Your task to perform on an android device: turn notification dots off Image 0: 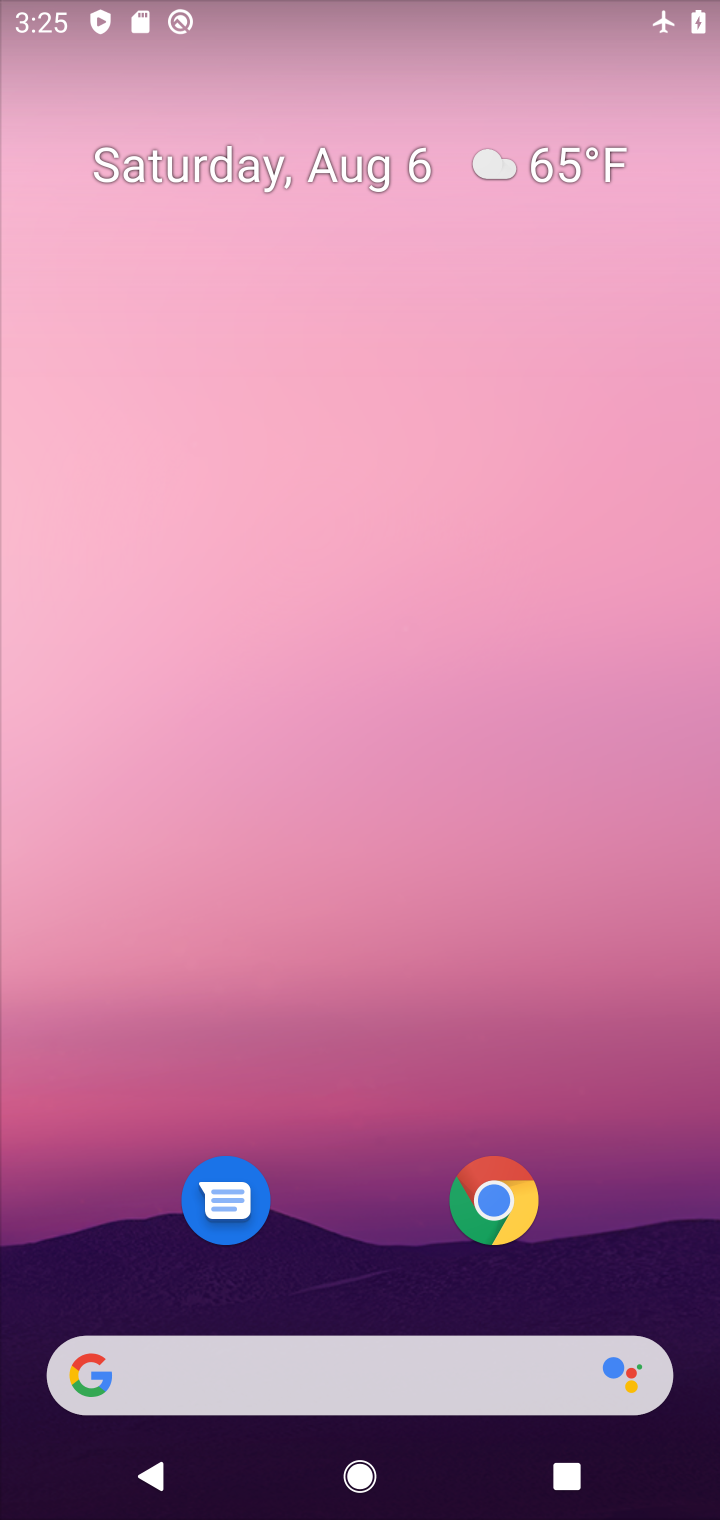
Step 0: drag from (313, 1313) to (480, 219)
Your task to perform on an android device: turn notification dots off Image 1: 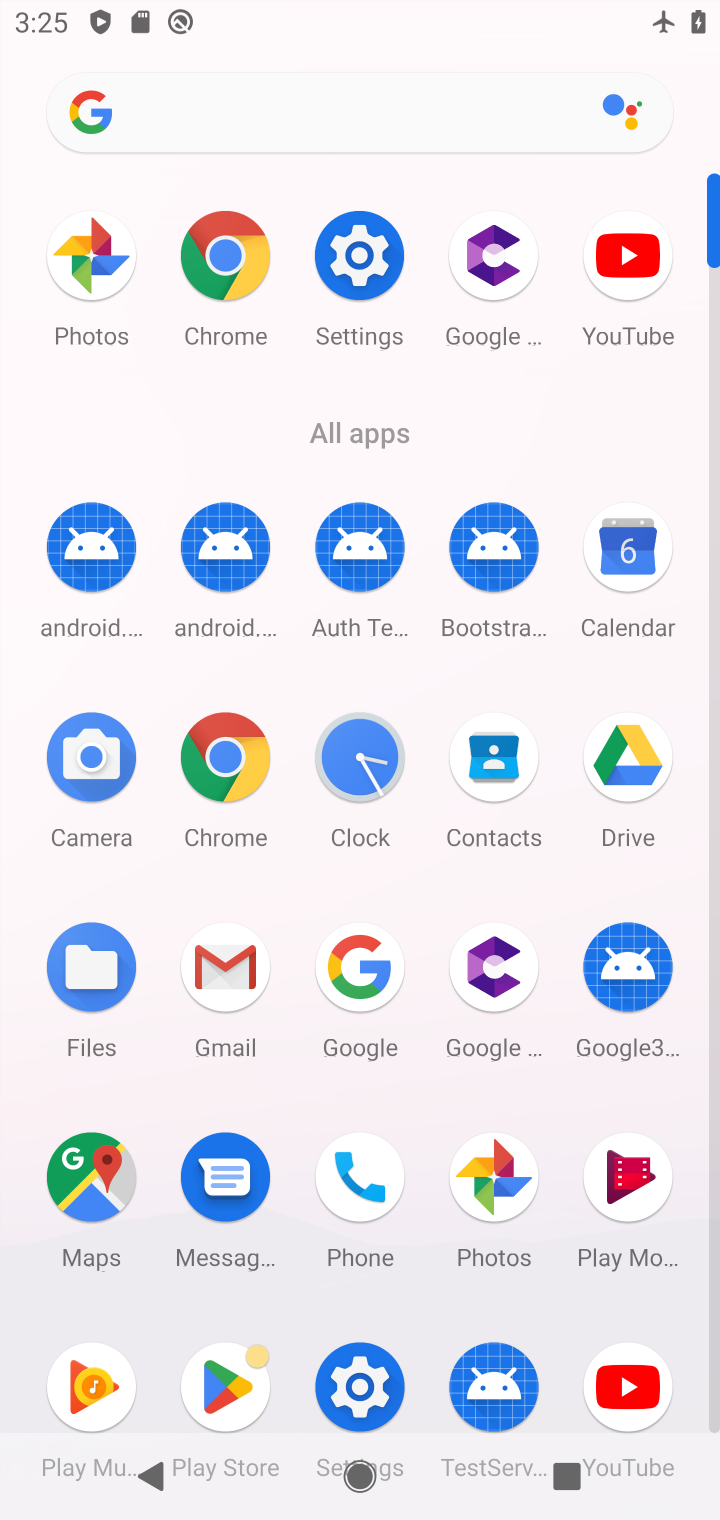
Step 1: click (361, 265)
Your task to perform on an android device: turn notification dots off Image 2: 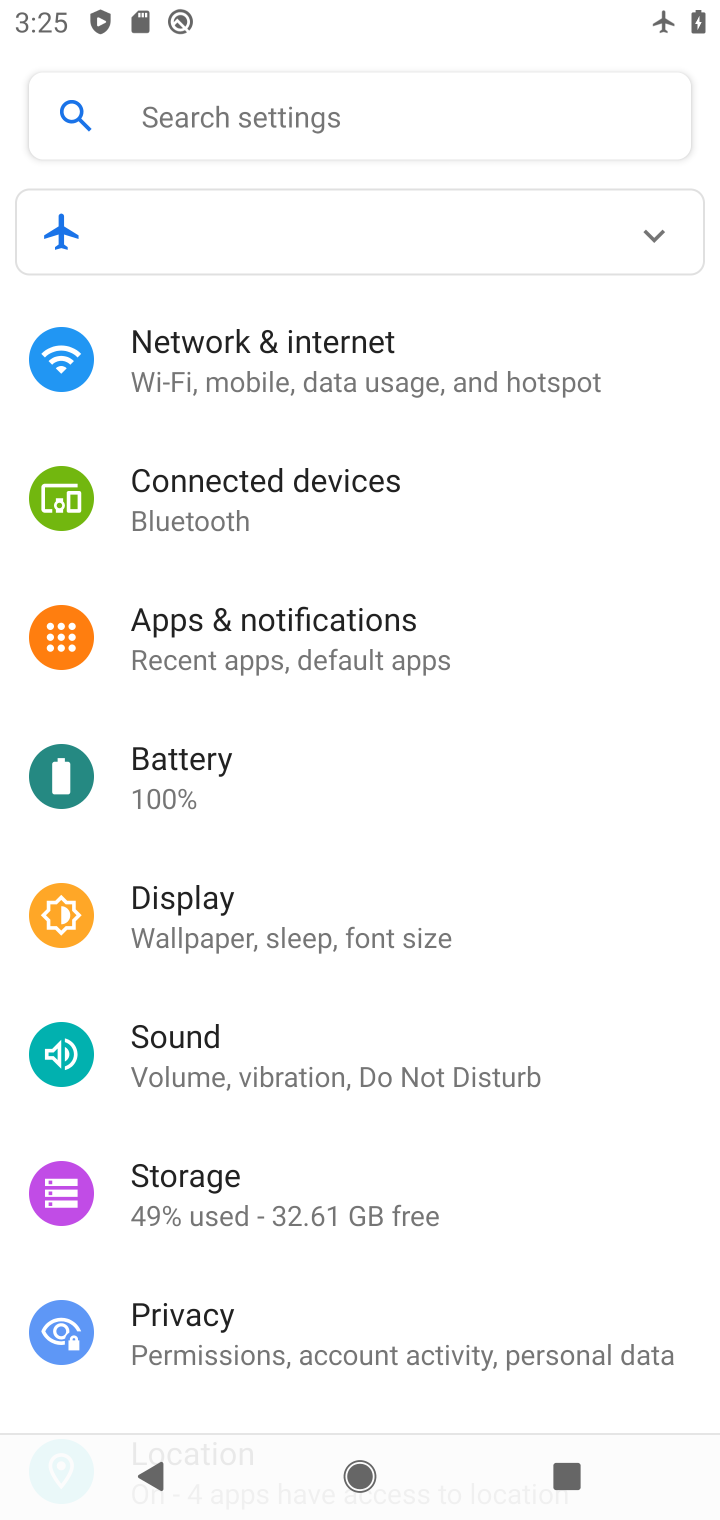
Step 2: click (152, 632)
Your task to perform on an android device: turn notification dots off Image 3: 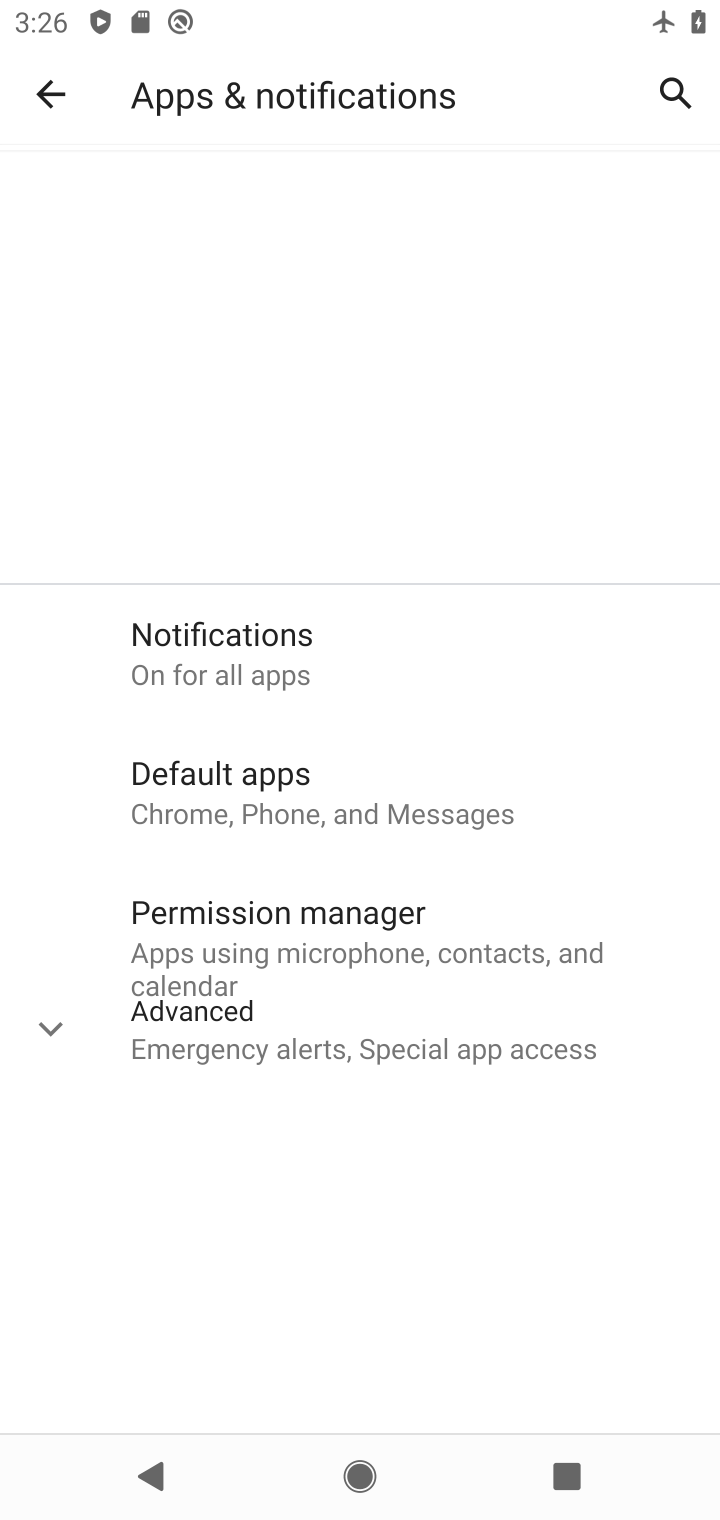
Step 3: click (190, 659)
Your task to perform on an android device: turn notification dots off Image 4: 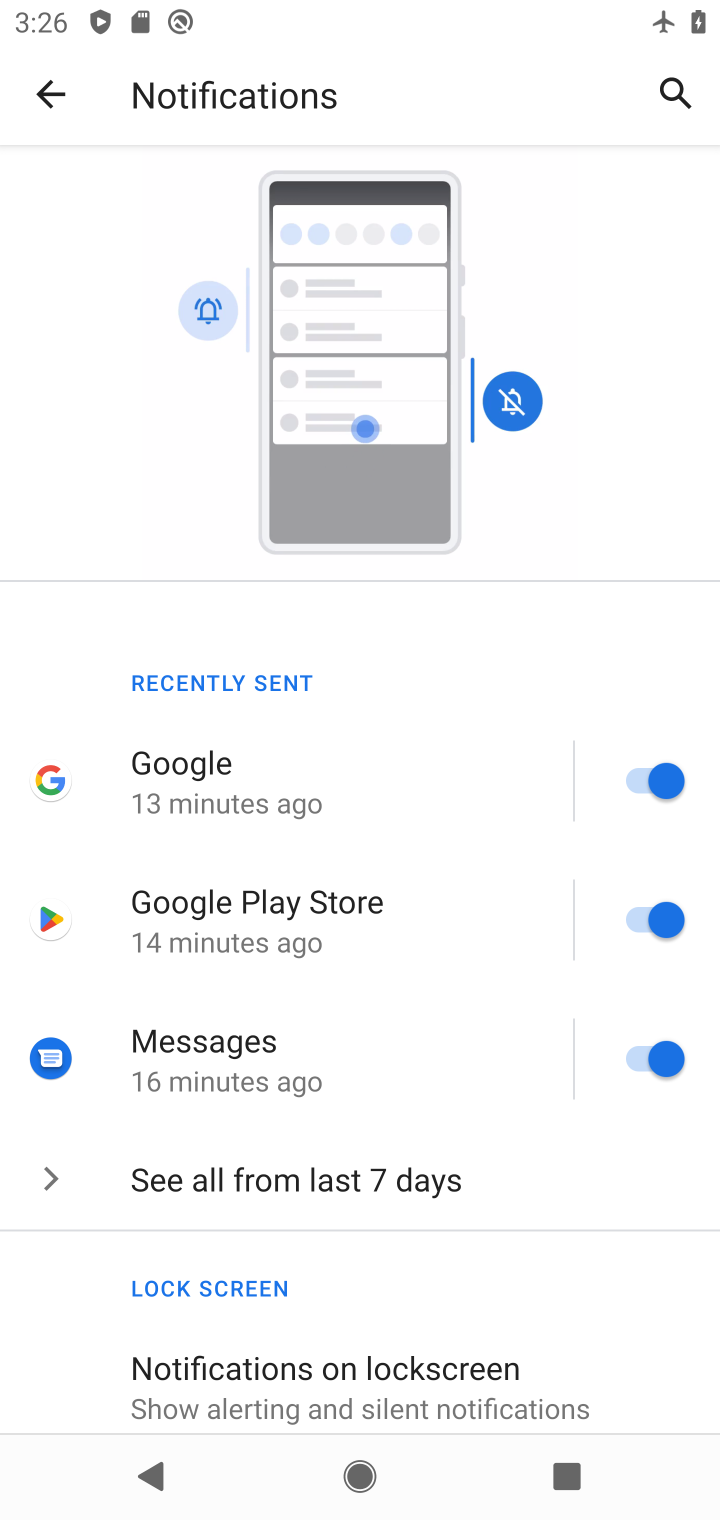
Step 4: drag from (213, 1379) to (214, 573)
Your task to perform on an android device: turn notification dots off Image 5: 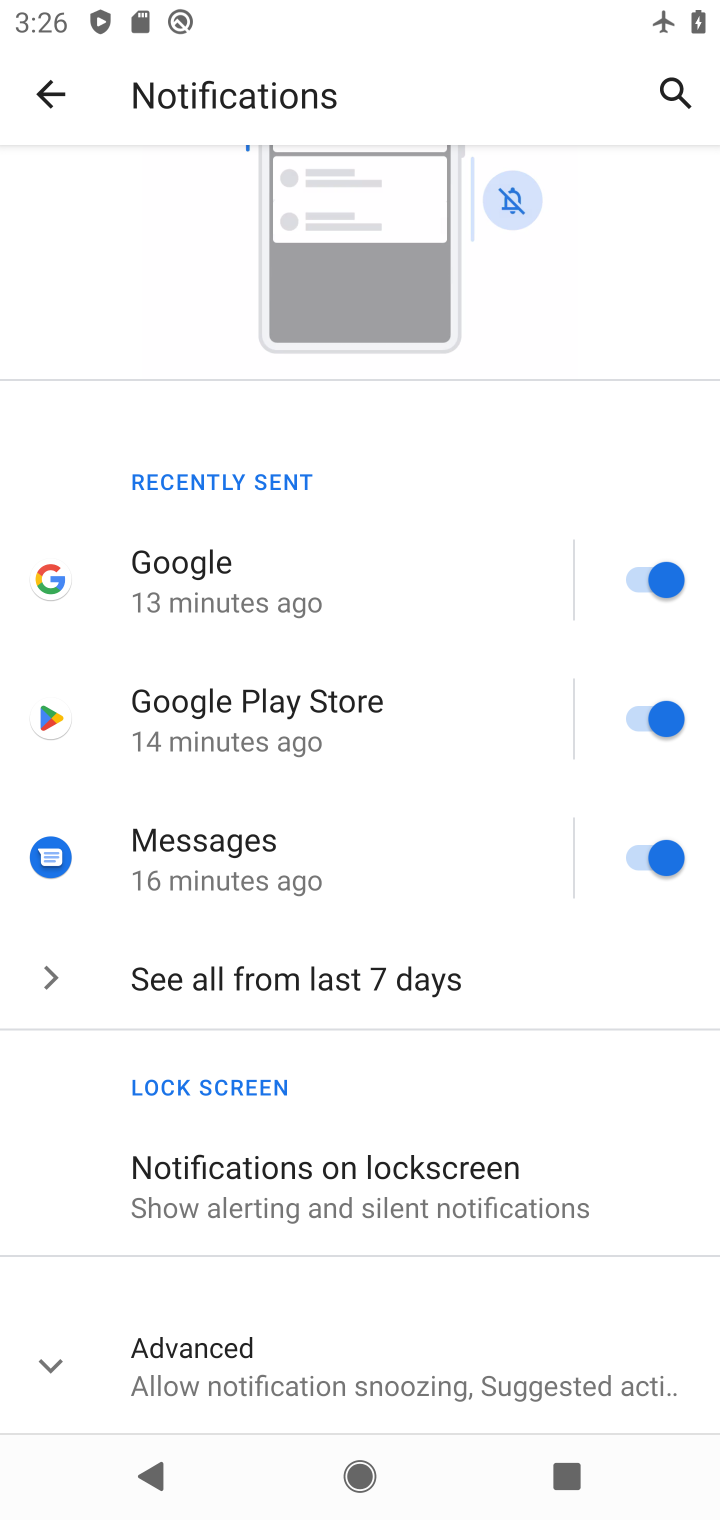
Step 5: click (190, 1372)
Your task to perform on an android device: turn notification dots off Image 6: 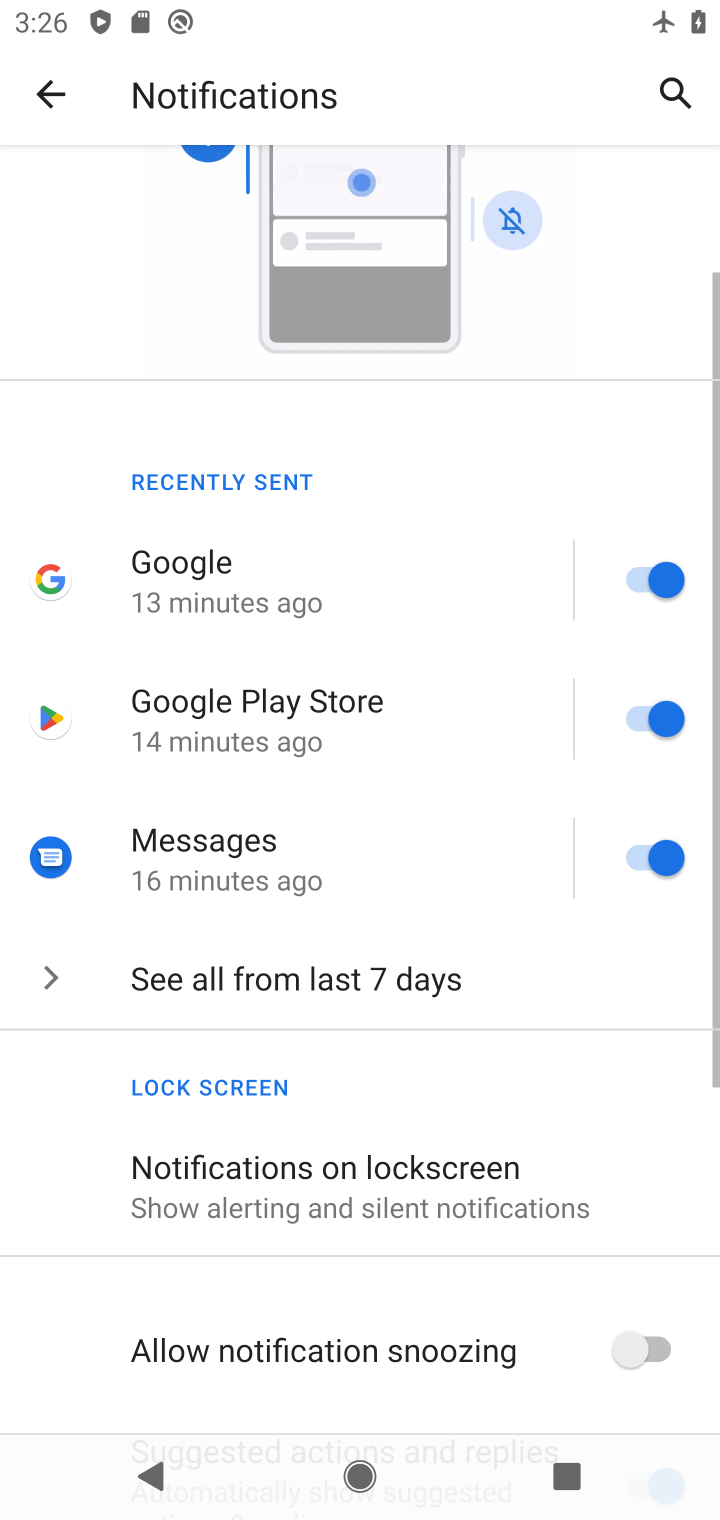
Step 6: drag from (373, 1335) to (411, 524)
Your task to perform on an android device: turn notification dots off Image 7: 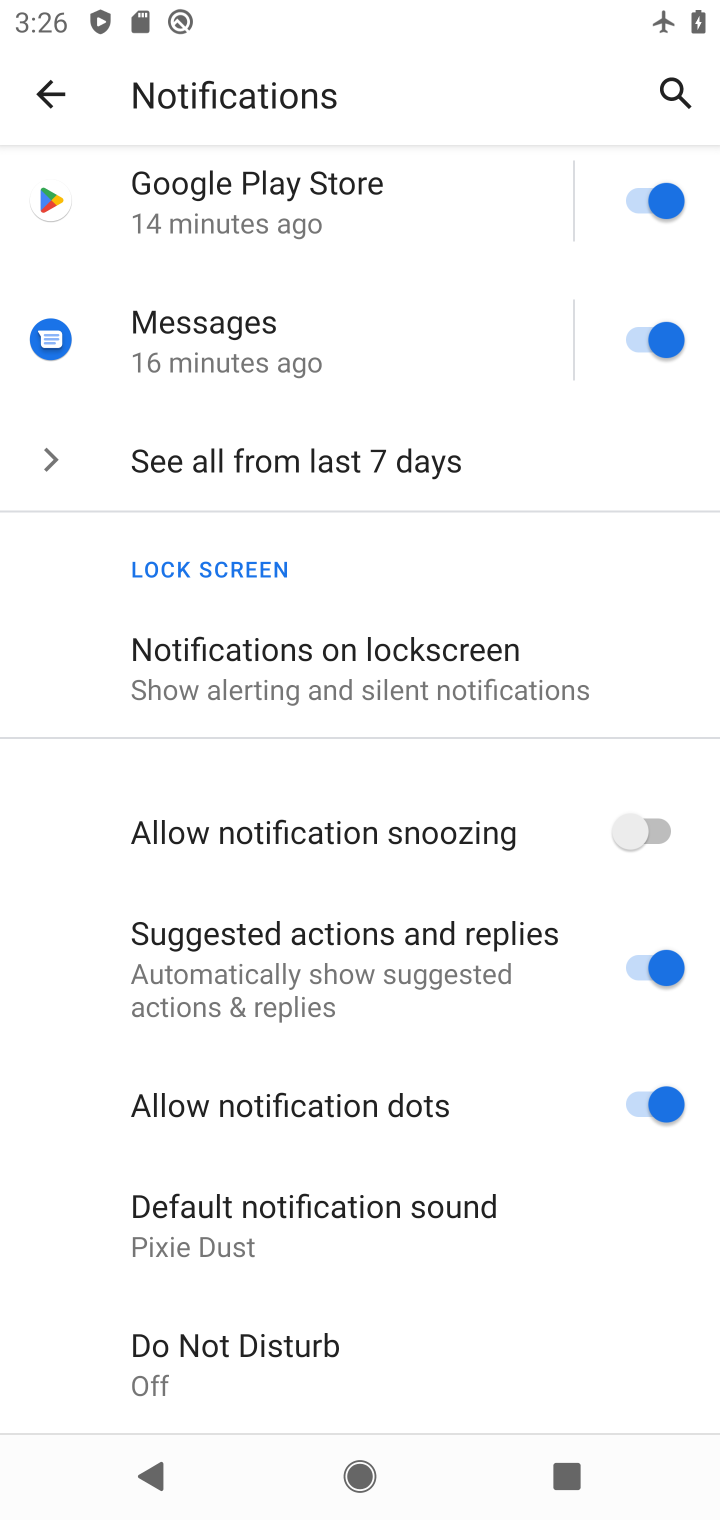
Step 7: drag from (428, 1358) to (487, 570)
Your task to perform on an android device: turn notification dots off Image 8: 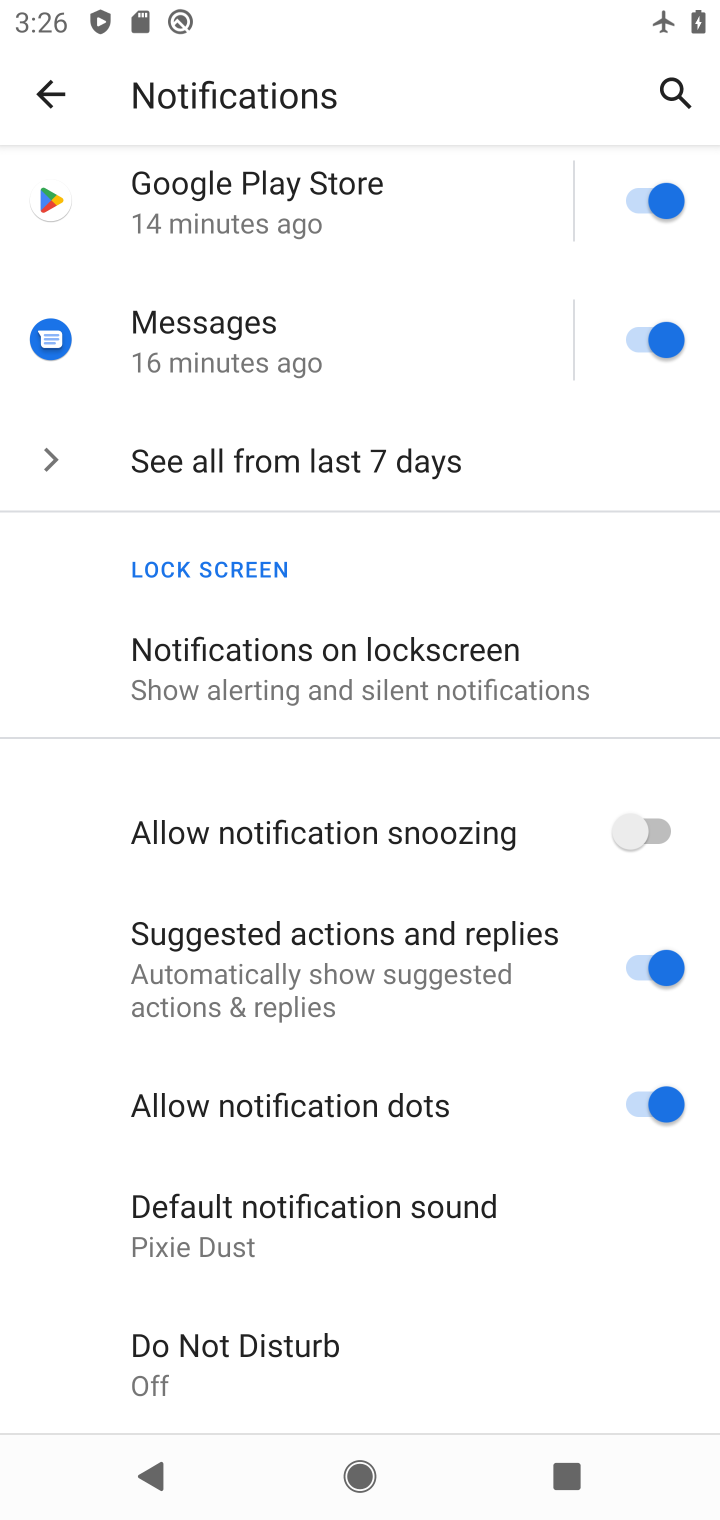
Step 8: click (665, 1107)
Your task to perform on an android device: turn notification dots off Image 9: 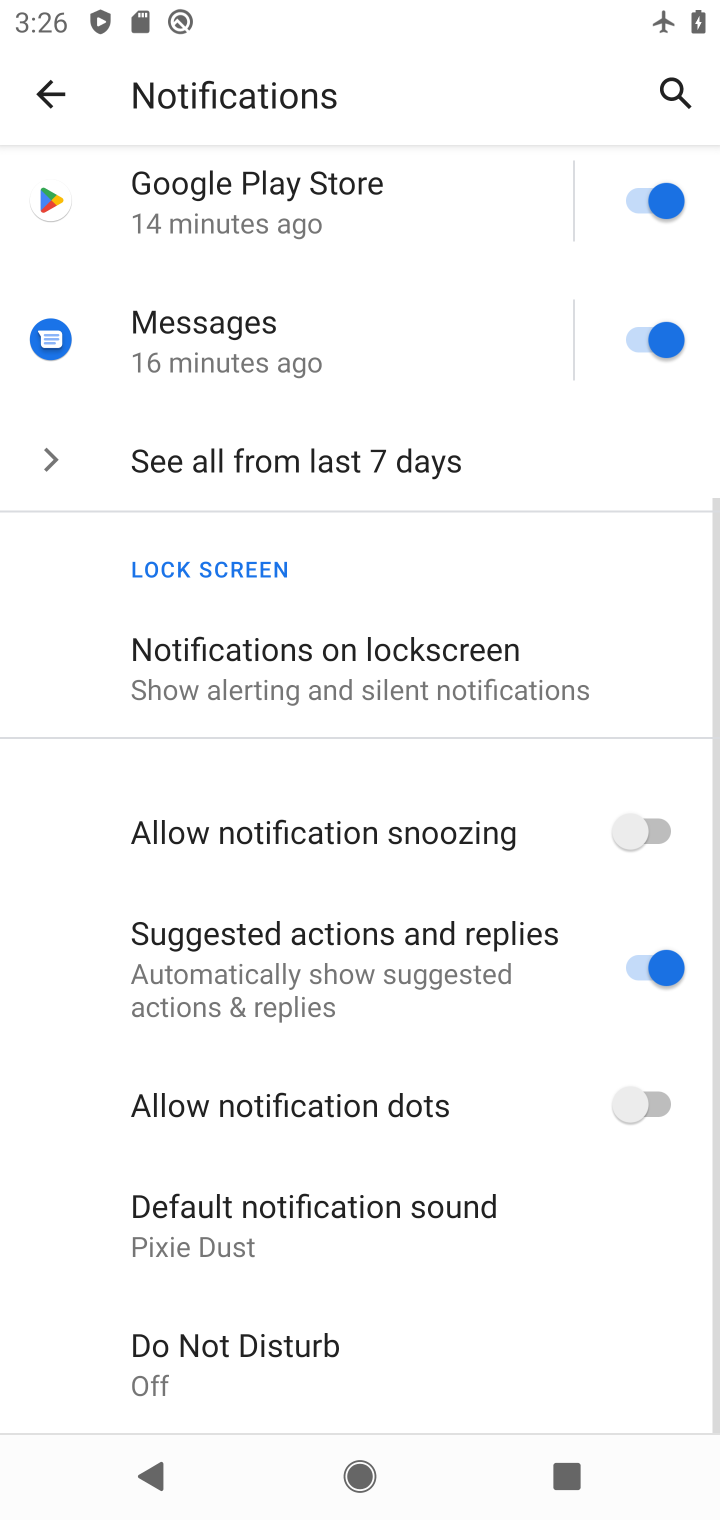
Step 9: task complete